Your task to perform on an android device: snooze an email in the gmail app Image 0: 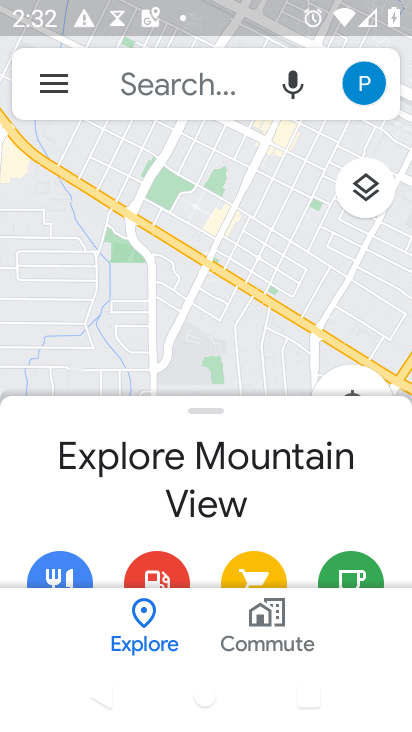
Step 0: press back button
Your task to perform on an android device: snooze an email in the gmail app Image 1: 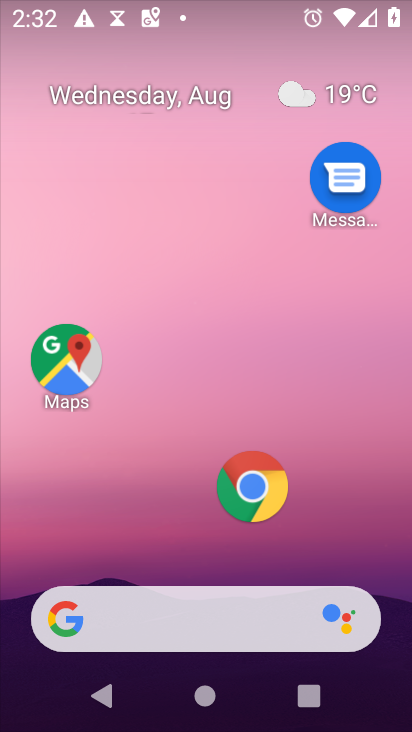
Step 1: drag from (211, 299) to (282, 27)
Your task to perform on an android device: snooze an email in the gmail app Image 2: 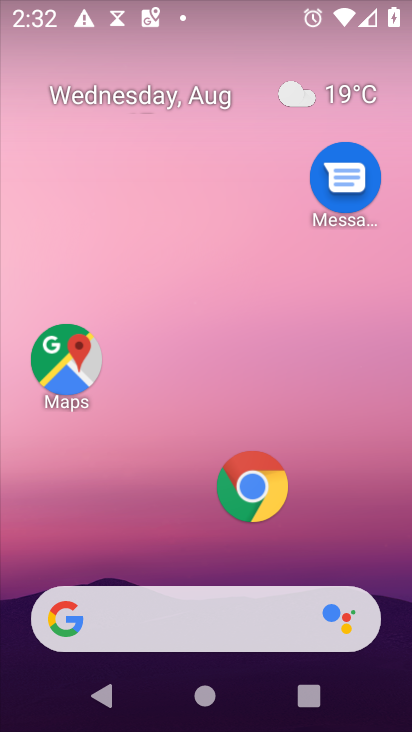
Step 2: drag from (155, 501) to (247, 3)
Your task to perform on an android device: snooze an email in the gmail app Image 3: 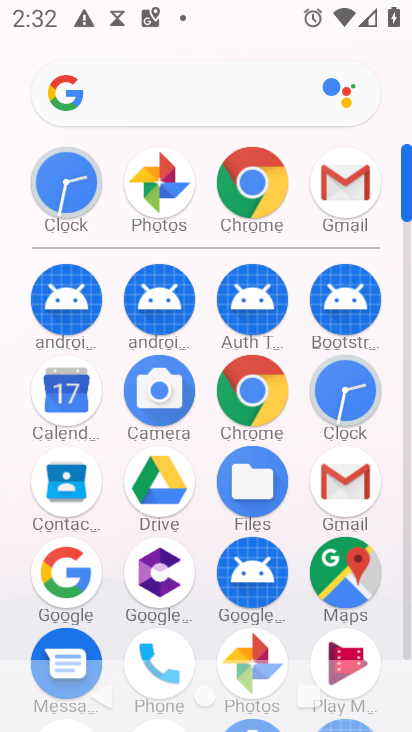
Step 3: click (351, 227)
Your task to perform on an android device: snooze an email in the gmail app Image 4: 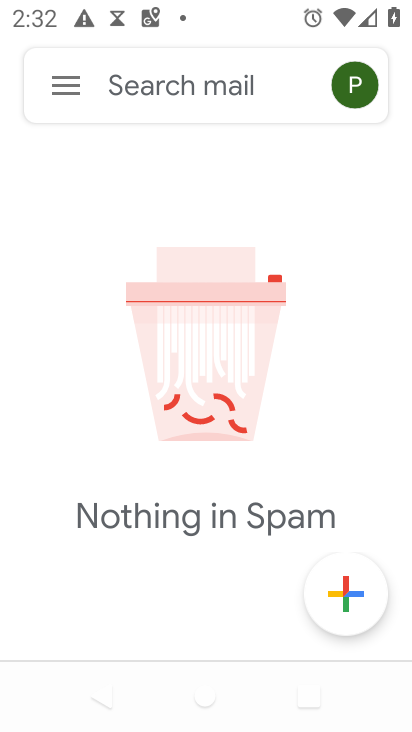
Step 4: click (93, 83)
Your task to perform on an android device: snooze an email in the gmail app Image 5: 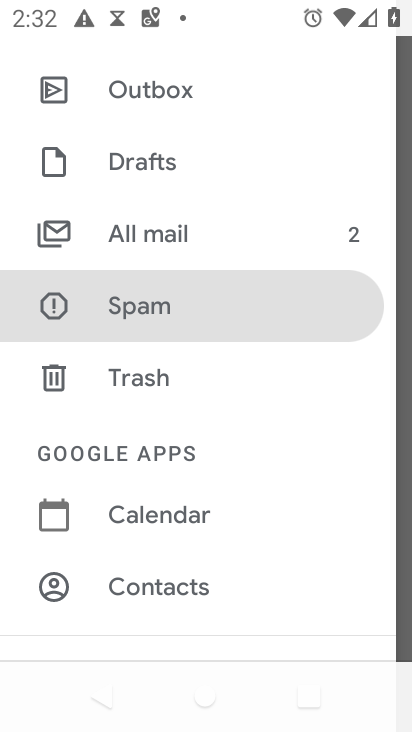
Step 5: click (215, 242)
Your task to perform on an android device: snooze an email in the gmail app Image 6: 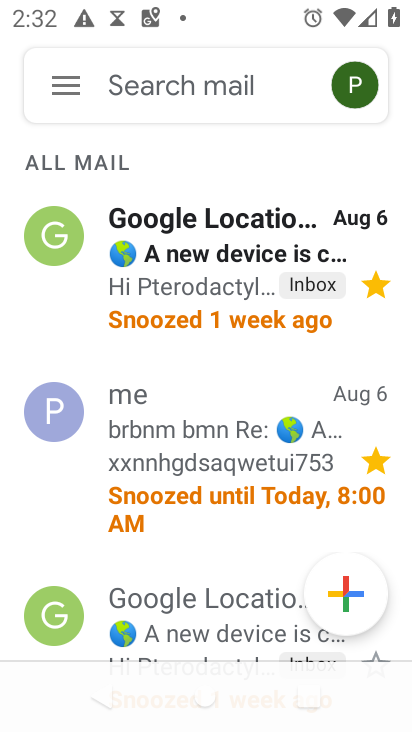
Step 6: drag from (211, 533) to (265, 191)
Your task to perform on an android device: snooze an email in the gmail app Image 7: 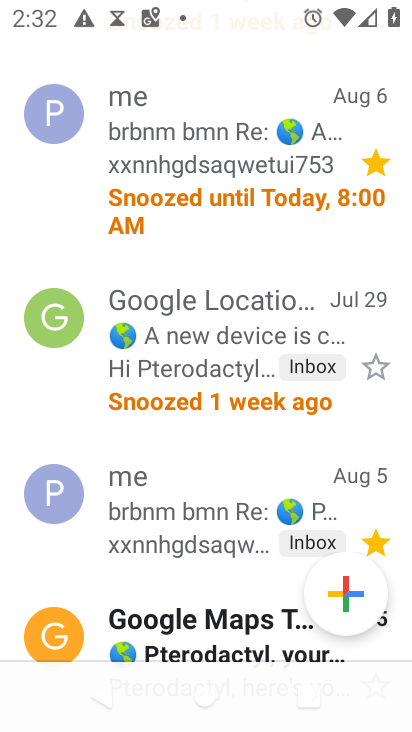
Step 7: click (146, 506)
Your task to perform on an android device: snooze an email in the gmail app Image 8: 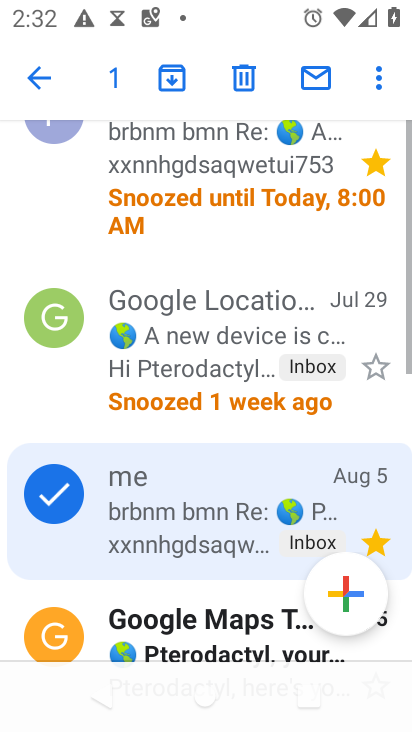
Step 8: click (376, 78)
Your task to perform on an android device: snooze an email in the gmail app Image 9: 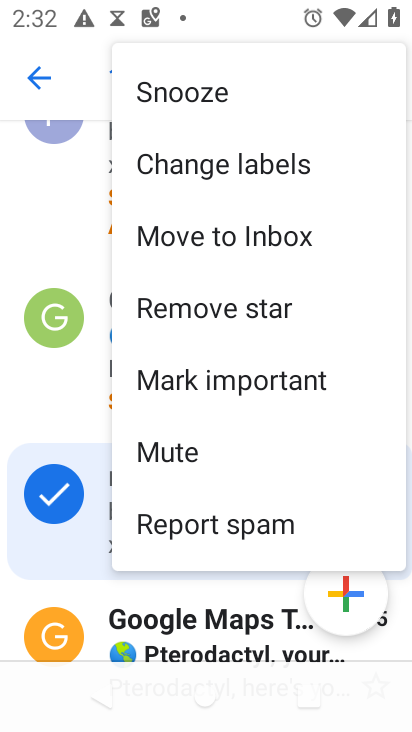
Step 9: click (195, 86)
Your task to perform on an android device: snooze an email in the gmail app Image 10: 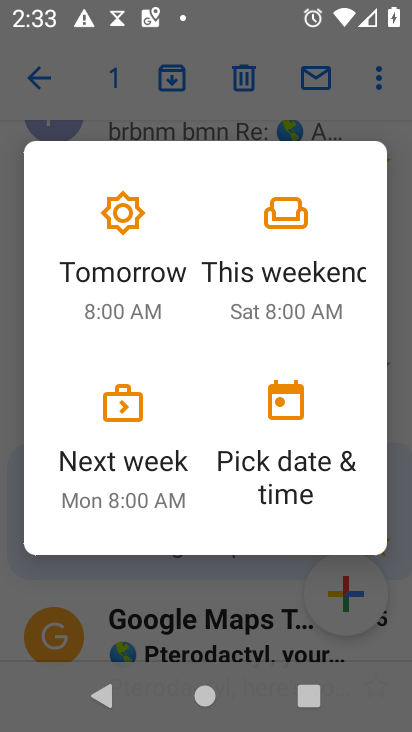
Step 10: click (136, 257)
Your task to perform on an android device: snooze an email in the gmail app Image 11: 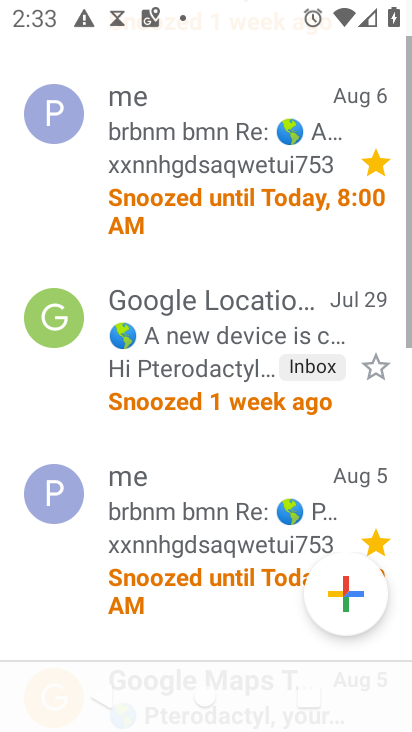
Step 11: task complete